Your task to perform on an android device: toggle sleep mode Image 0: 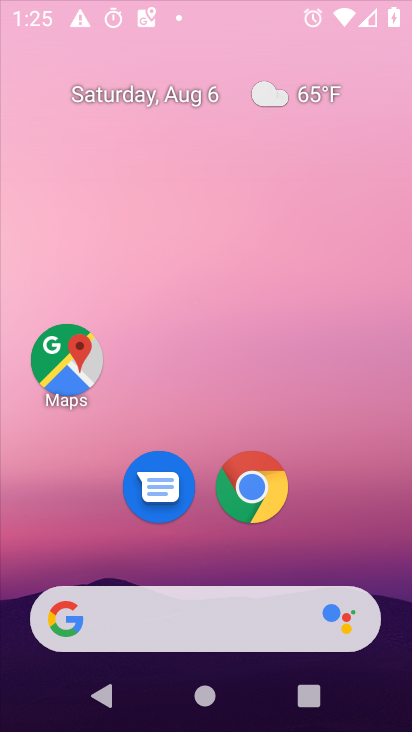
Step 0: click (255, 27)
Your task to perform on an android device: toggle sleep mode Image 1: 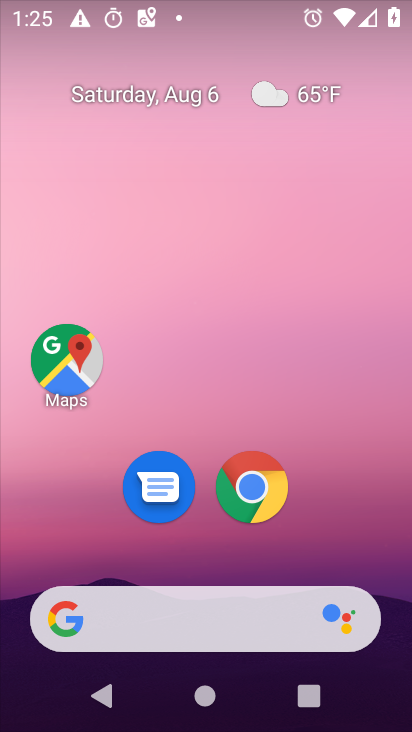
Step 1: drag from (179, 568) to (264, 27)
Your task to perform on an android device: toggle sleep mode Image 2: 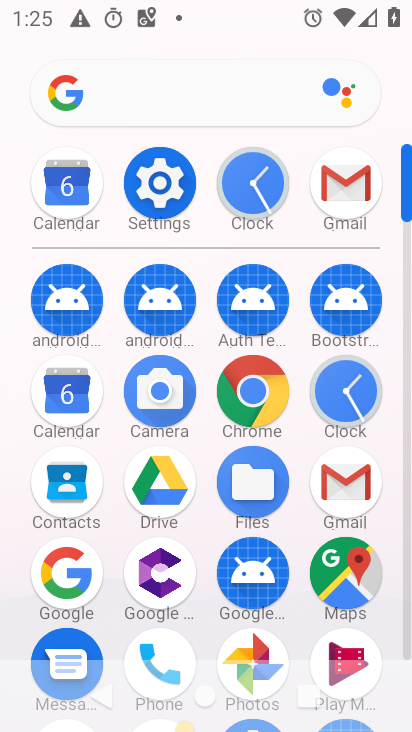
Step 2: click (160, 201)
Your task to perform on an android device: toggle sleep mode Image 3: 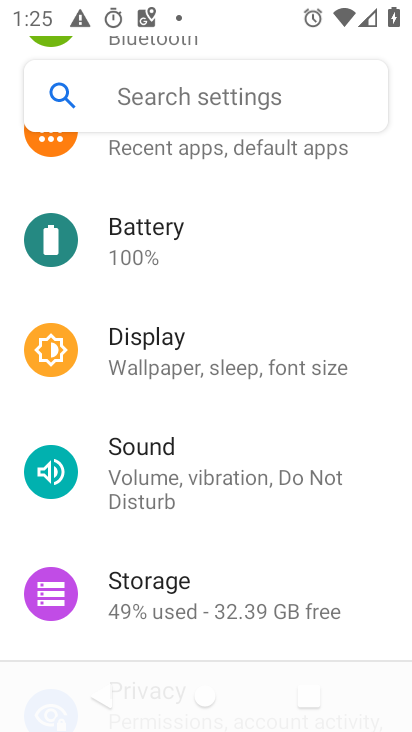
Step 3: click (193, 88)
Your task to perform on an android device: toggle sleep mode Image 4: 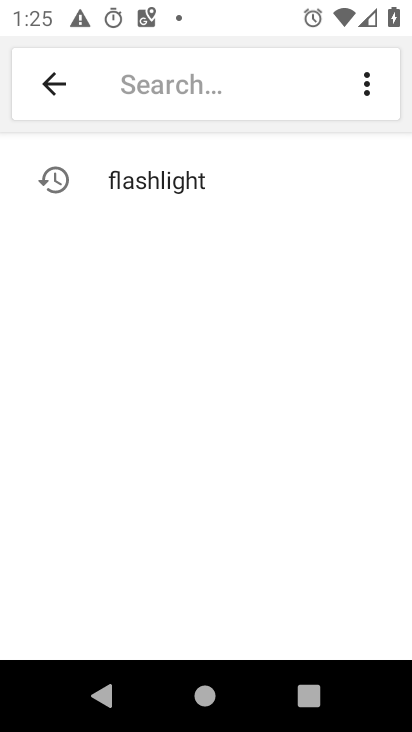
Step 4: type "sleep mode"
Your task to perform on an android device: toggle sleep mode Image 5: 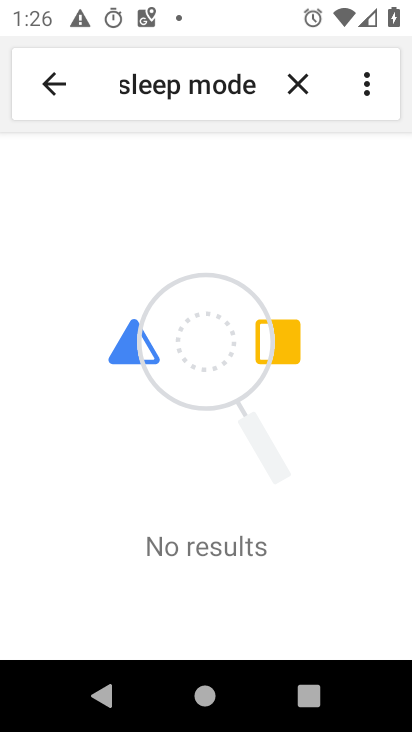
Step 5: task complete